Your task to perform on an android device: open device folders in google photos Image 0: 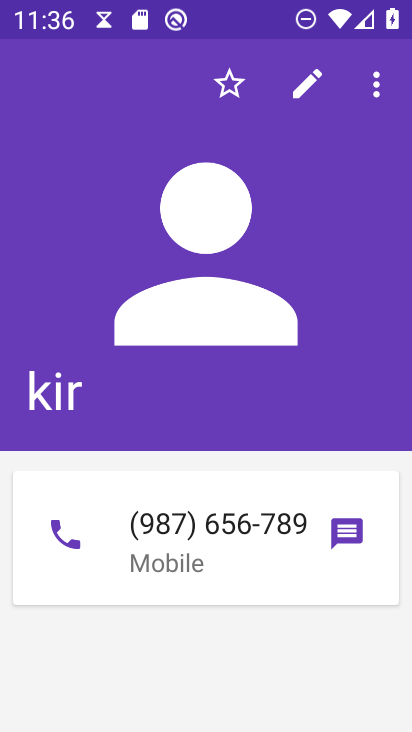
Step 0: press home button
Your task to perform on an android device: open device folders in google photos Image 1: 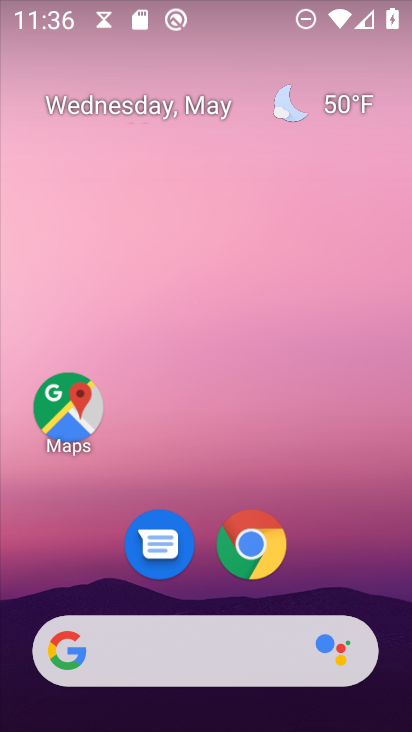
Step 1: drag from (203, 587) to (154, 177)
Your task to perform on an android device: open device folders in google photos Image 2: 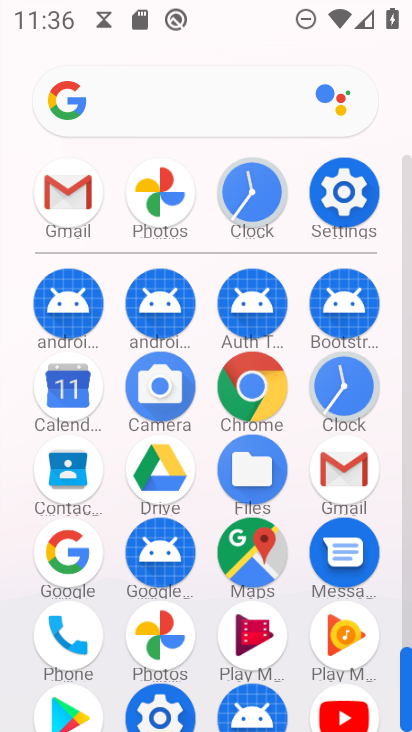
Step 2: click (170, 214)
Your task to perform on an android device: open device folders in google photos Image 3: 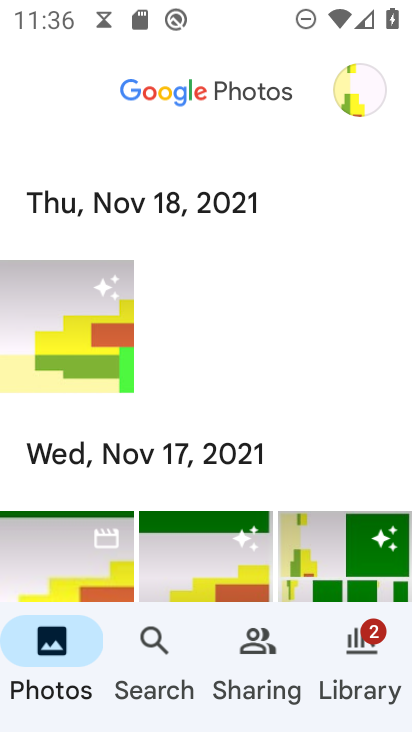
Step 3: click (351, 88)
Your task to perform on an android device: open device folders in google photos Image 4: 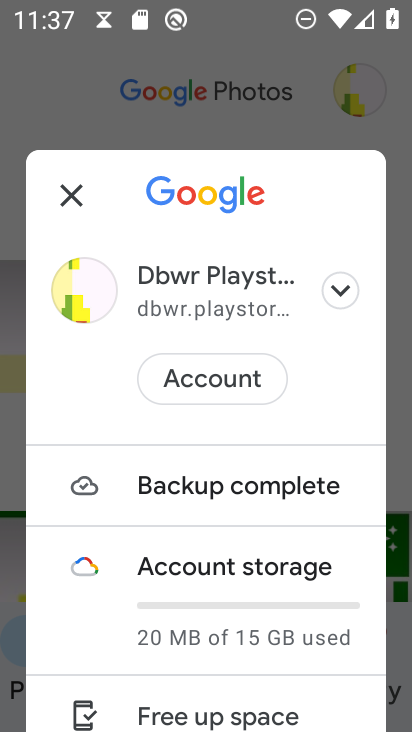
Step 4: press home button
Your task to perform on an android device: open device folders in google photos Image 5: 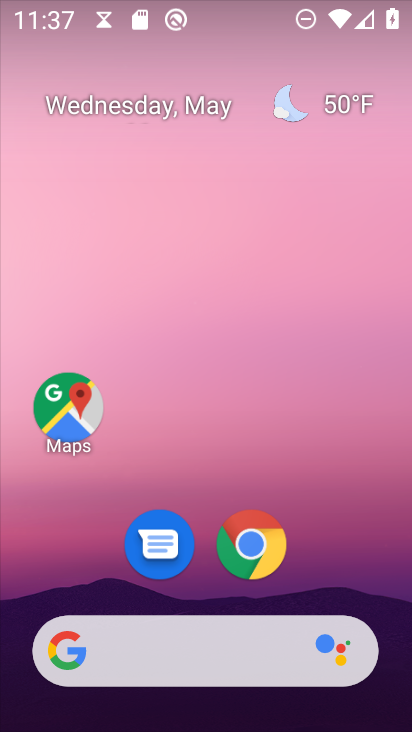
Step 5: drag from (195, 561) to (207, 35)
Your task to perform on an android device: open device folders in google photos Image 6: 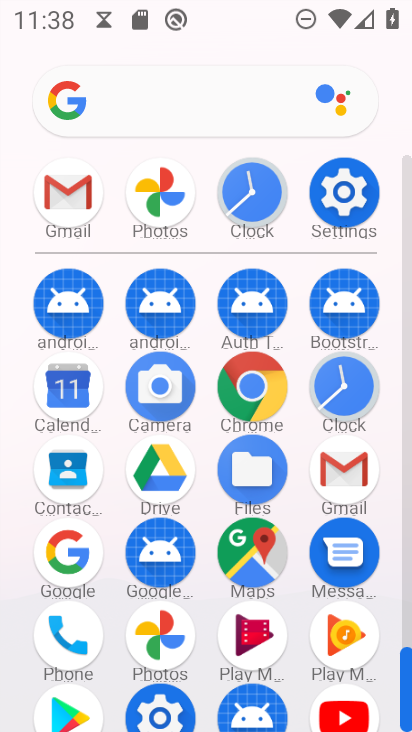
Step 6: click (157, 211)
Your task to perform on an android device: open device folders in google photos Image 7: 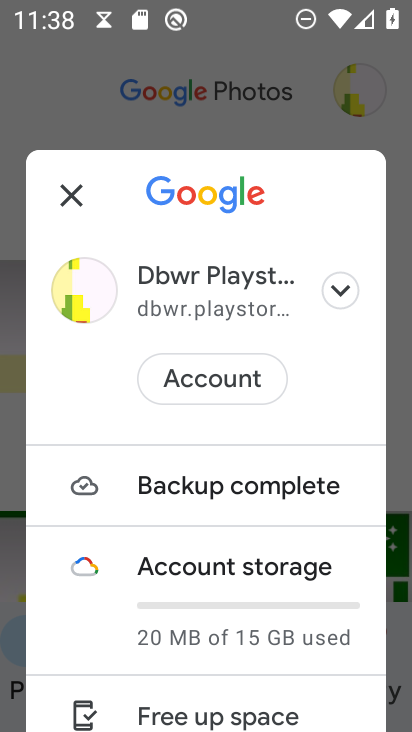
Step 7: task complete